Your task to perform on an android device: Go to sound settings Image 0: 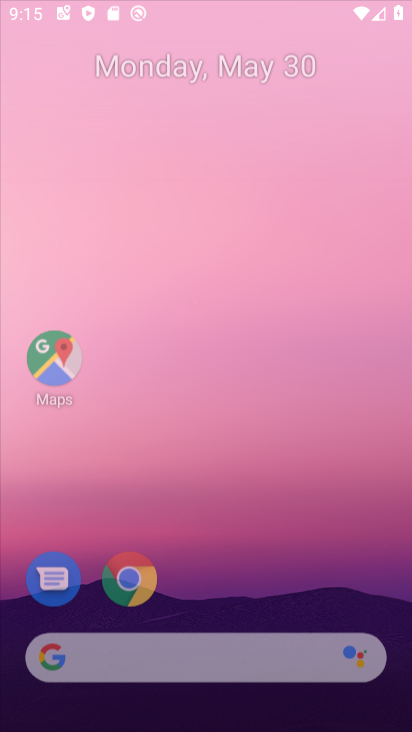
Step 0: press home button
Your task to perform on an android device: Go to sound settings Image 1: 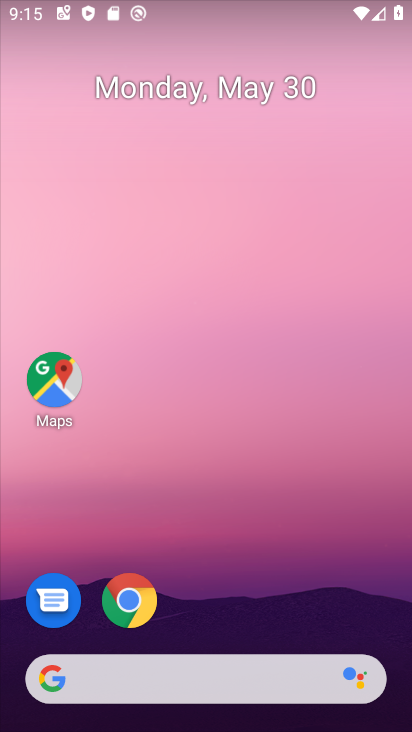
Step 1: drag from (294, 532) to (262, 2)
Your task to perform on an android device: Go to sound settings Image 2: 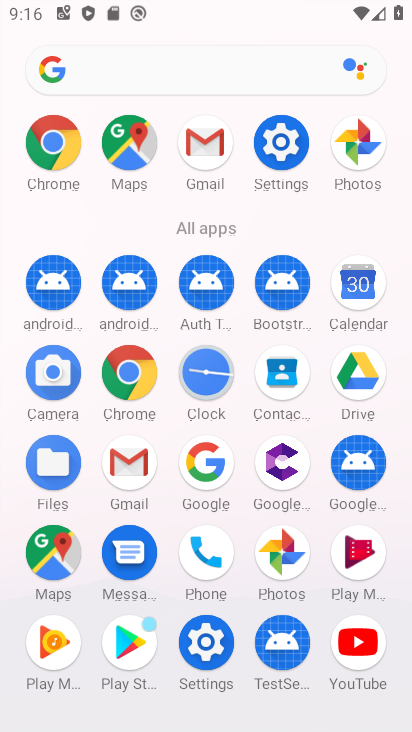
Step 2: click (290, 140)
Your task to perform on an android device: Go to sound settings Image 3: 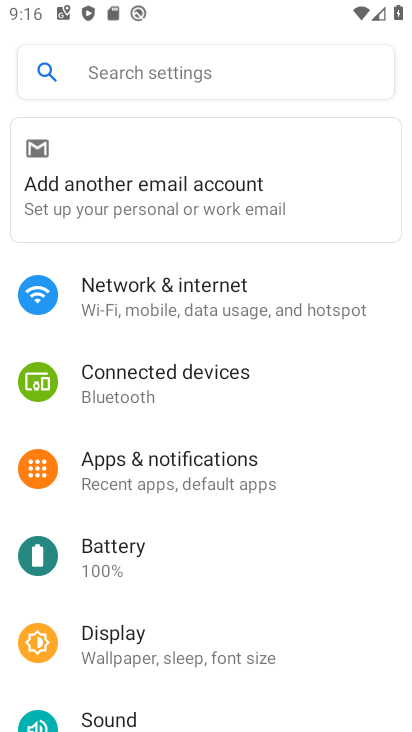
Step 3: click (110, 726)
Your task to perform on an android device: Go to sound settings Image 4: 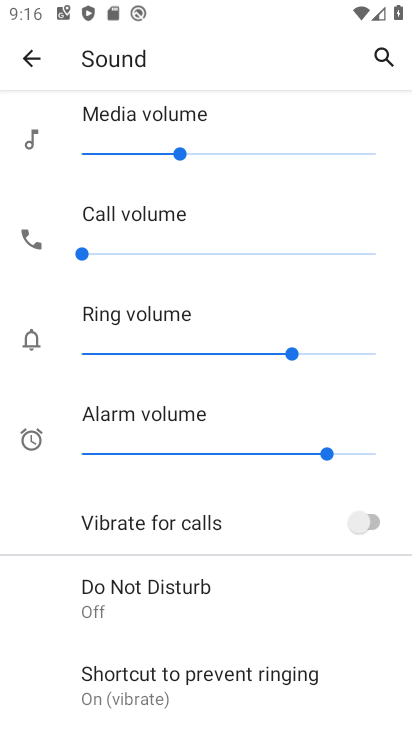
Step 4: task complete